Your task to perform on an android device: Open Youtube and go to the subscriptions tab Image 0: 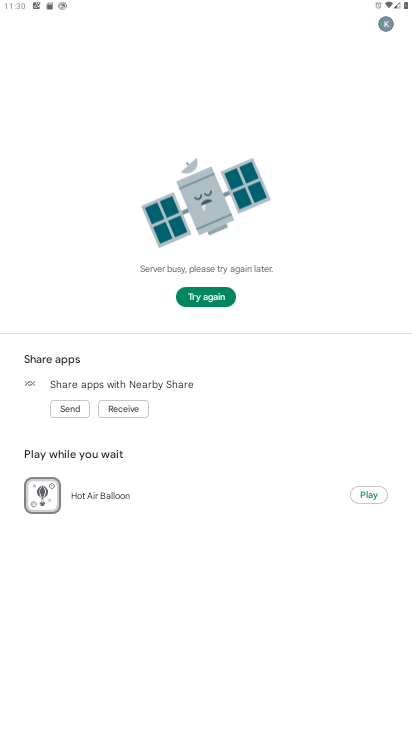
Step 0: press home button
Your task to perform on an android device: Open Youtube and go to the subscriptions tab Image 1: 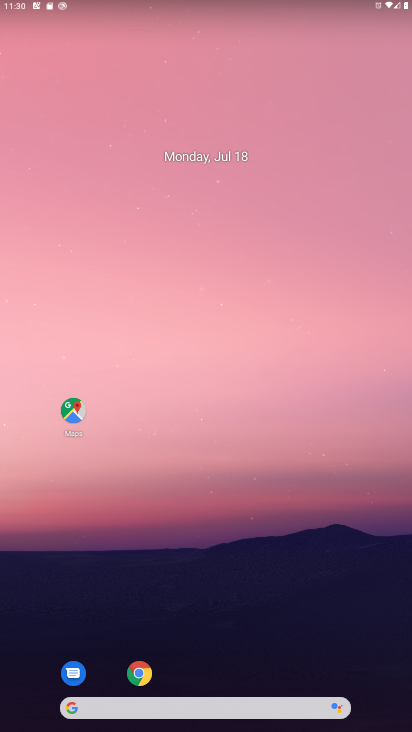
Step 1: drag from (197, 503) to (209, 142)
Your task to perform on an android device: Open Youtube and go to the subscriptions tab Image 2: 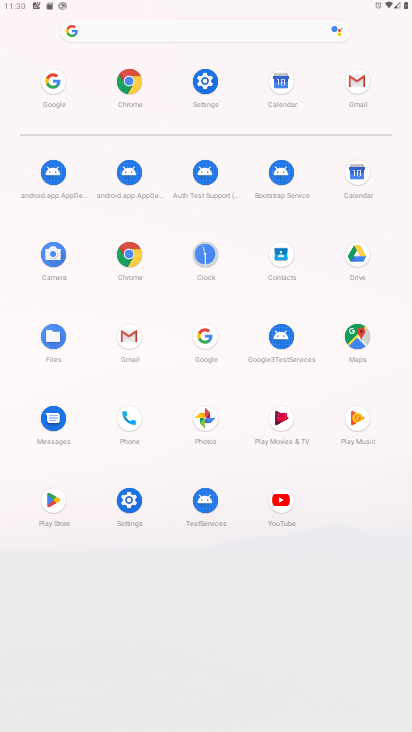
Step 2: click (289, 517)
Your task to perform on an android device: Open Youtube and go to the subscriptions tab Image 3: 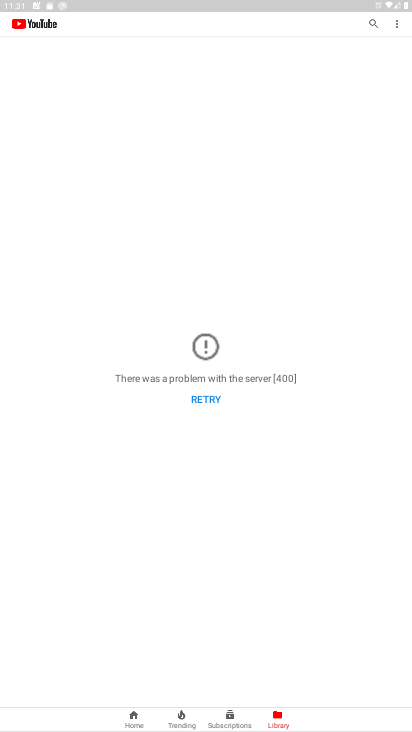
Step 3: click (219, 713)
Your task to perform on an android device: Open Youtube and go to the subscriptions tab Image 4: 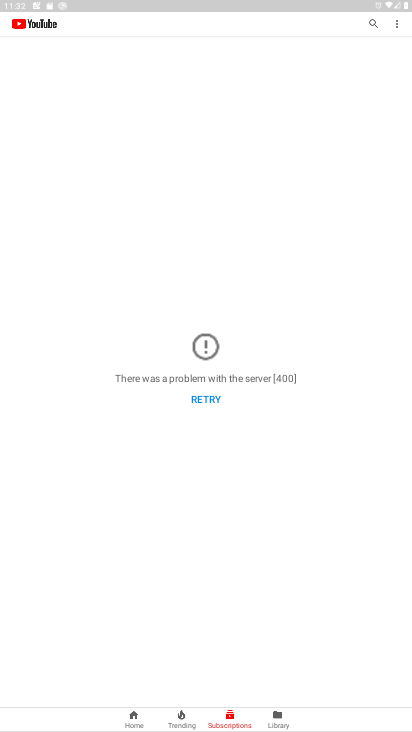
Step 4: task complete